Your task to perform on an android device: turn pop-ups on in chrome Image 0: 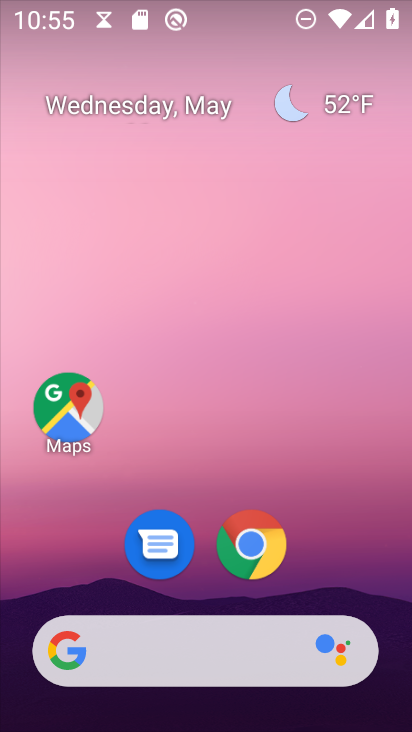
Step 0: click (248, 533)
Your task to perform on an android device: turn pop-ups on in chrome Image 1: 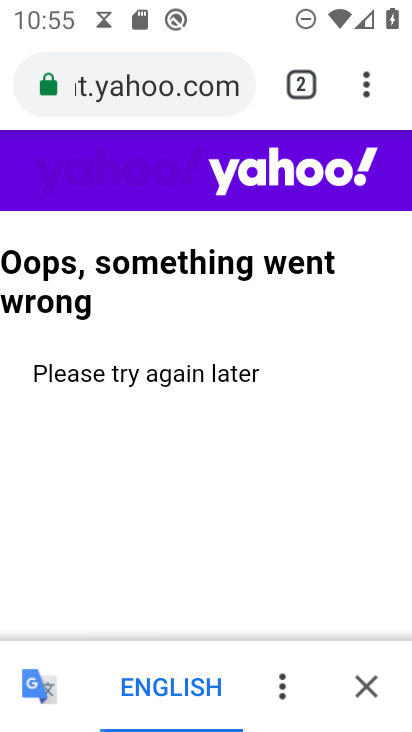
Step 1: click (373, 75)
Your task to perform on an android device: turn pop-ups on in chrome Image 2: 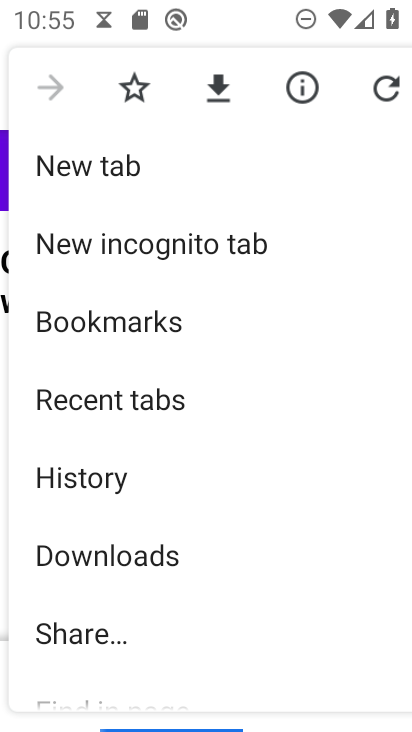
Step 2: drag from (131, 635) to (128, 333)
Your task to perform on an android device: turn pop-ups on in chrome Image 3: 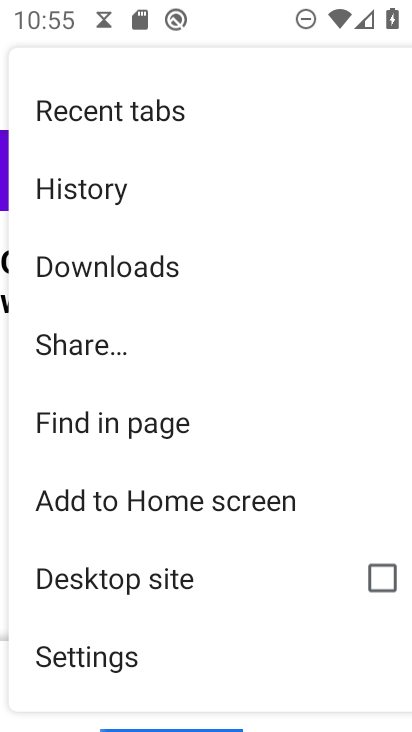
Step 3: click (125, 669)
Your task to perform on an android device: turn pop-ups on in chrome Image 4: 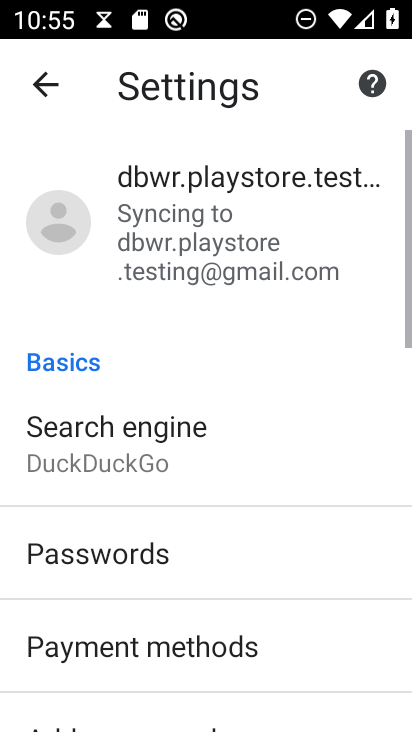
Step 4: drag from (125, 669) to (140, 259)
Your task to perform on an android device: turn pop-ups on in chrome Image 5: 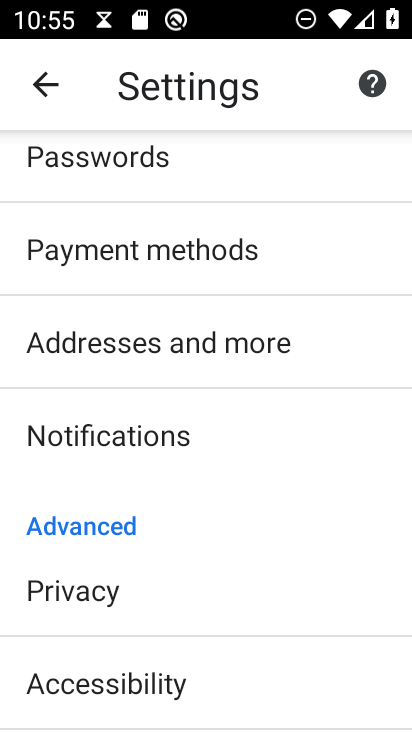
Step 5: drag from (159, 640) to (191, 294)
Your task to perform on an android device: turn pop-ups on in chrome Image 6: 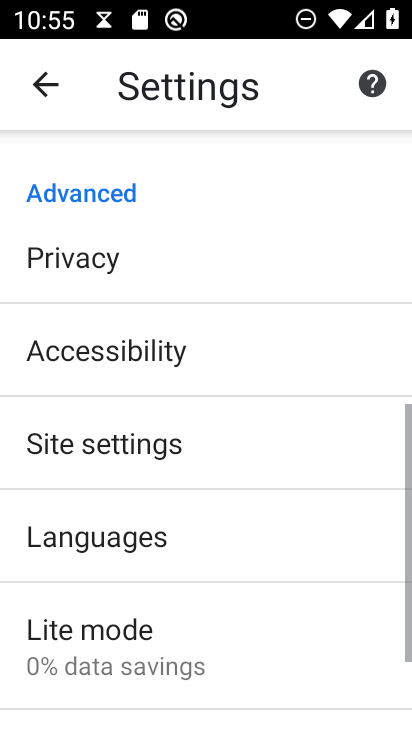
Step 6: drag from (186, 662) to (212, 457)
Your task to perform on an android device: turn pop-ups on in chrome Image 7: 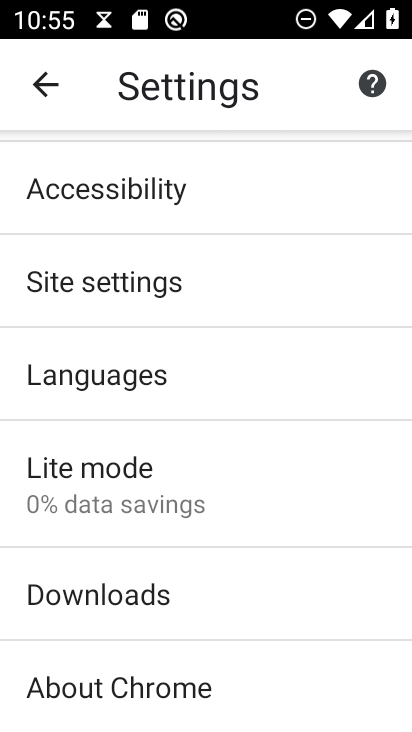
Step 7: drag from (175, 417) to (167, 353)
Your task to perform on an android device: turn pop-ups on in chrome Image 8: 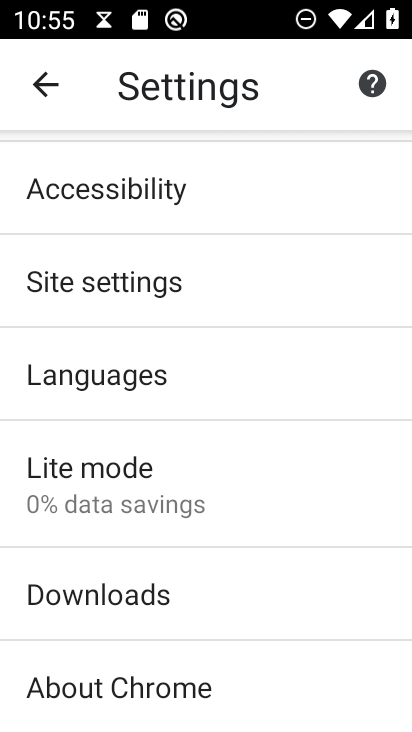
Step 8: click (134, 296)
Your task to perform on an android device: turn pop-ups on in chrome Image 9: 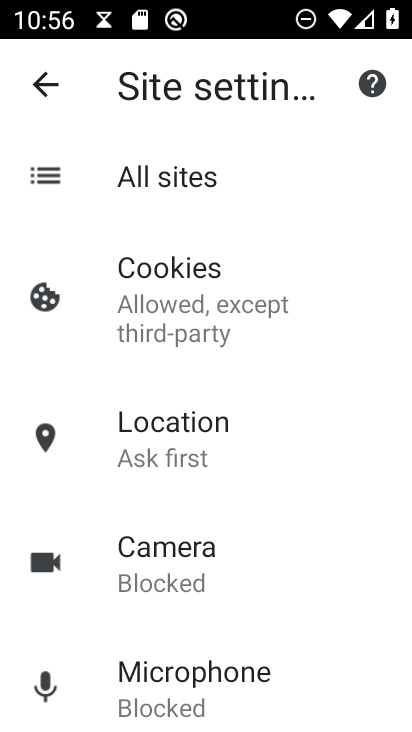
Step 9: drag from (76, 648) to (140, 145)
Your task to perform on an android device: turn pop-ups on in chrome Image 10: 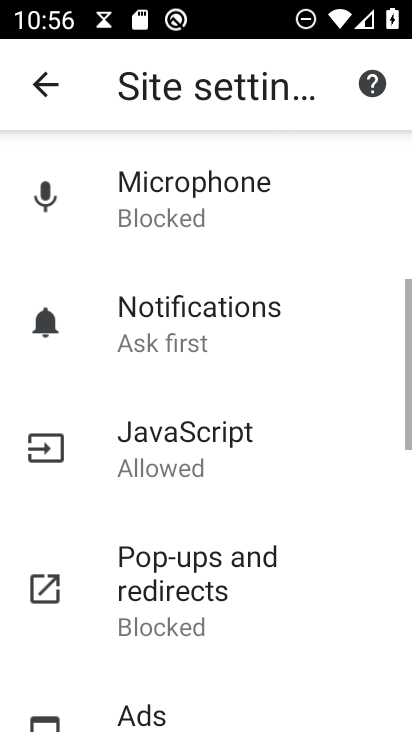
Step 10: click (135, 607)
Your task to perform on an android device: turn pop-ups on in chrome Image 11: 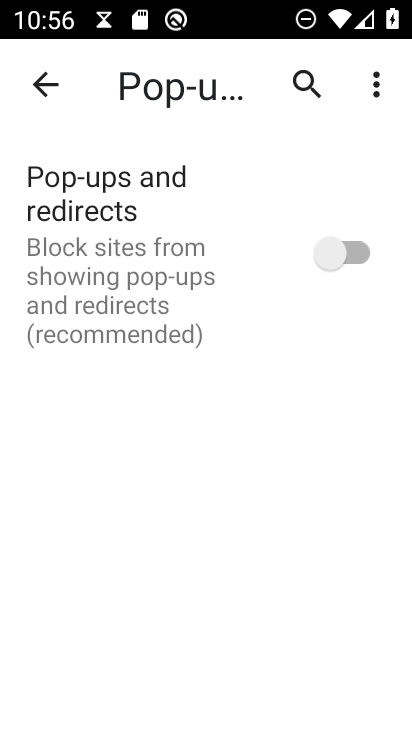
Step 11: click (373, 263)
Your task to perform on an android device: turn pop-ups on in chrome Image 12: 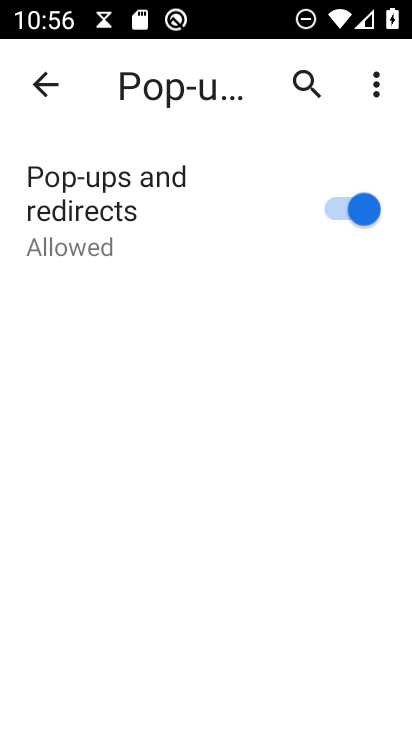
Step 12: task complete